Your task to perform on an android device: Play the latest video from the Huffington Post Image 0: 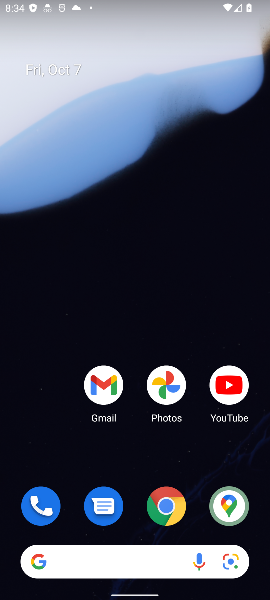
Step 0: click (234, 382)
Your task to perform on an android device: Play the latest video from the Huffington Post Image 1: 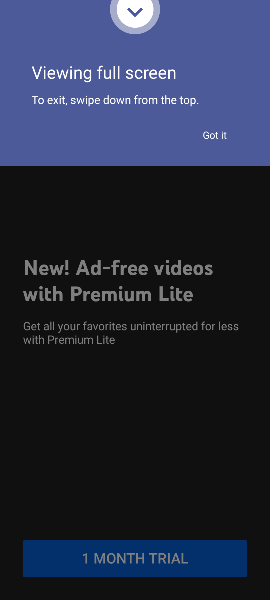
Step 1: press back button
Your task to perform on an android device: Play the latest video from the Huffington Post Image 2: 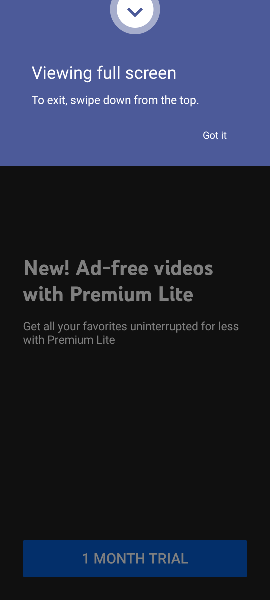
Step 2: click (209, 132)
Your task to perform on an android device: Play the latest video from the Huffington Post Image 3: 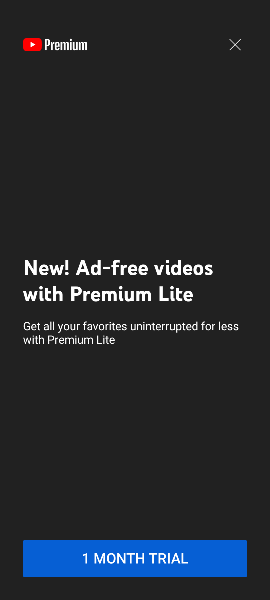
Step 3: click (233, 48)
Your task to perform on an android device: Play the latest video from the Huffington Post Image 4: 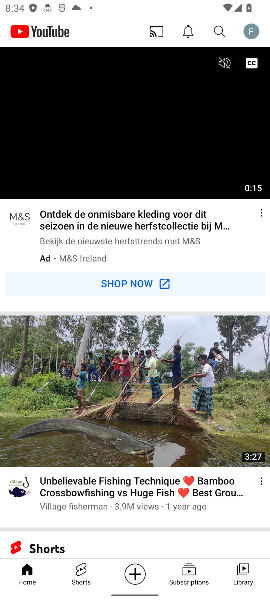
Step 4: click (213, 27)
Your task to perform on an android device: Play the latest video from the Huffington Post Image 5: 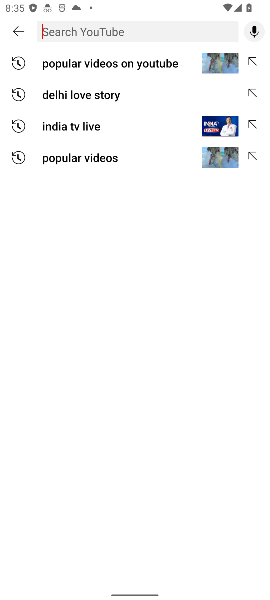
Step 5: type " latest video from the Huffington Post"
Your task to perform on an android device: Play the latest video from the Huffington Post Image 6: 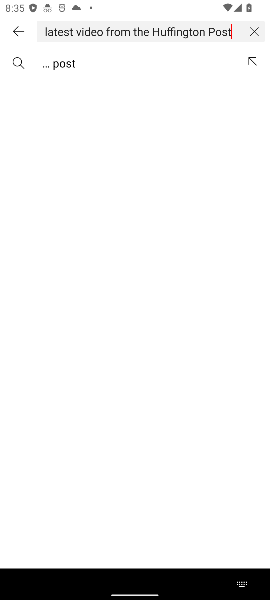
Step 6: click (73, 70)
Your task to perform on an android device: Play the latest video from the Huffington Post Image 7: 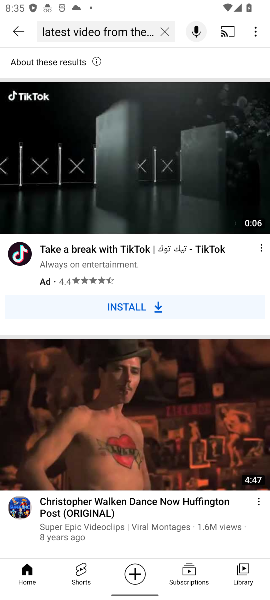
Step 7: task complete